Your task to perform on an android device: check out phone information Image 0: 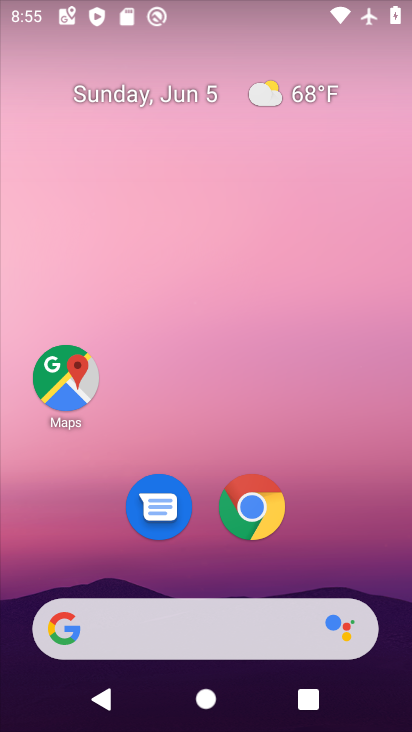
Step 0: drag from (210, 574) to (243, 97)
Your task to perform on an android device: check out phone information Image 1: 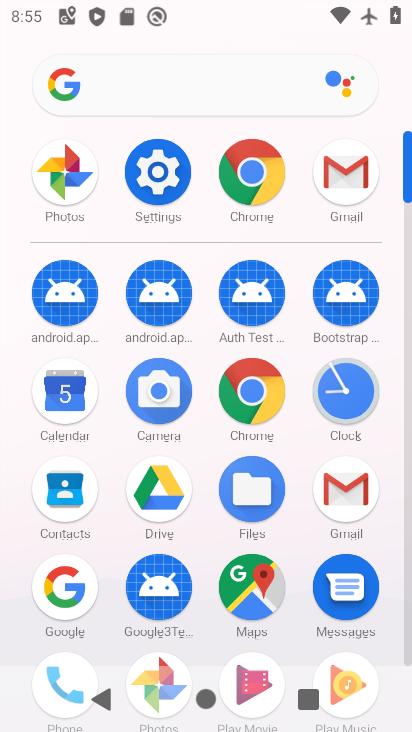
Step 1: click (171, 172)
Your task to perform on an android device: check out phone information Image 2: 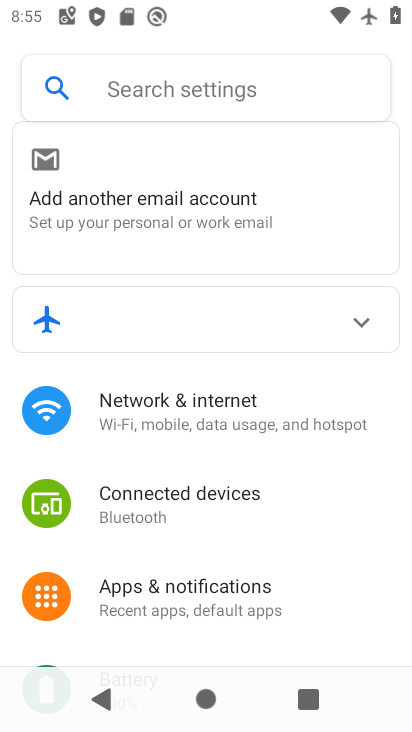
Step 2: drag from (181, 595) to (206, 345)
Your task to perform on an android device: check out phone information Image 3: 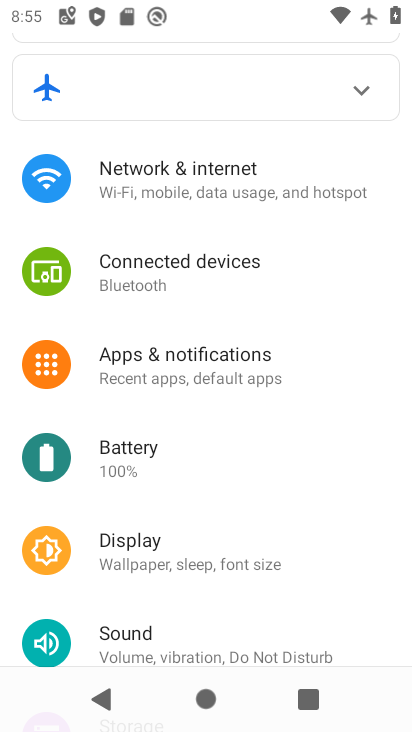
Step 3: drag from (171, 572) to (237, 268)
Your task to perform on an android device: check out phone information Image 4: 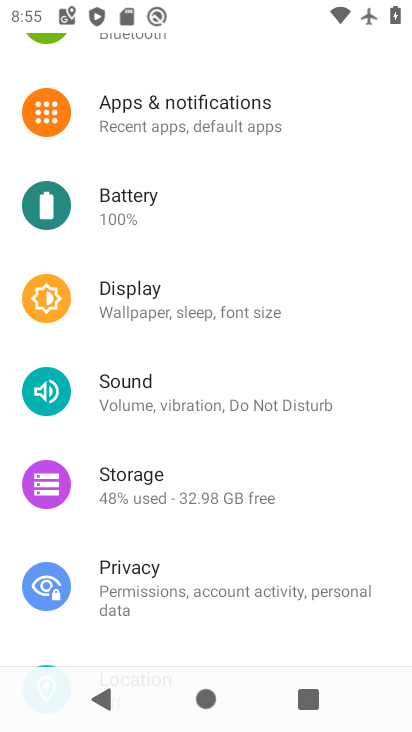
Step 4: drag from (220, 567) to (235, 290)
Your task to perform on an android device: check out phone information Image 5: 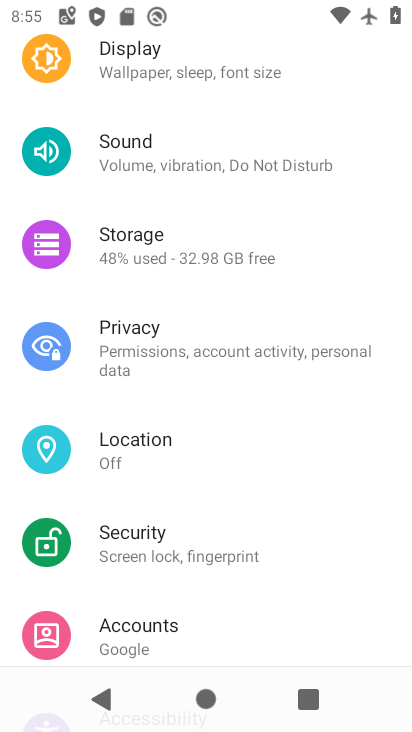
Step 5: drag from (173, 570) to (233, 289)
Your task to perform on an android device: check out phone information Image 6: 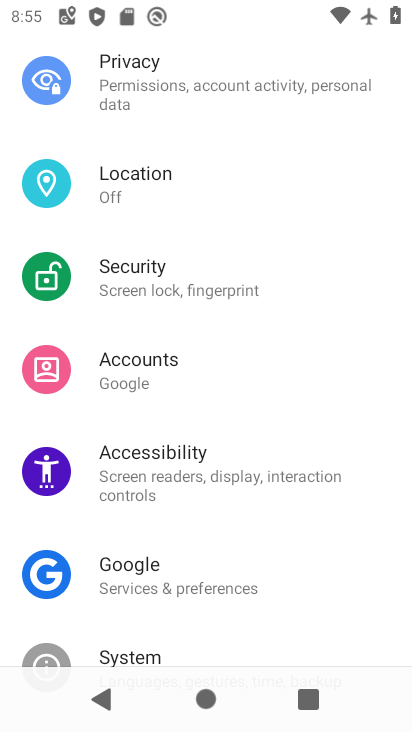
Step 6: drag from (200, 624) to (279, 53)
Your task to perform on an android device: check out phone information Image 7: 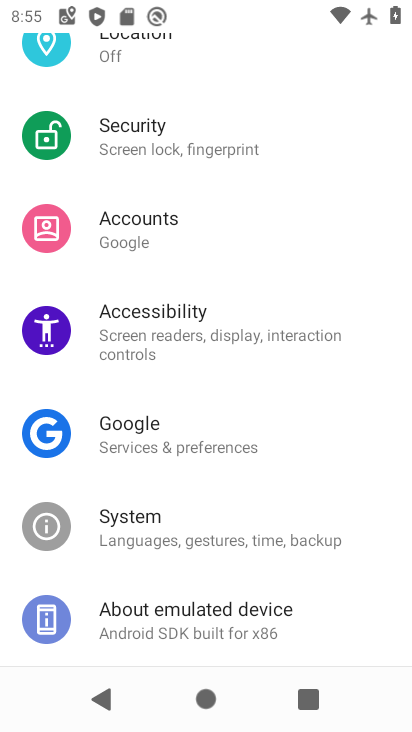
Step 7: click (182, 621)
Your task to perform on an android device: check out phone information Image 8: 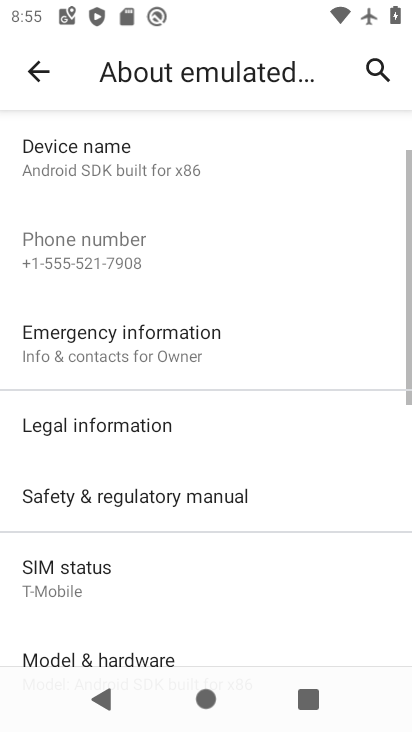
Step 8: task complete